Your task to perform on an android device: check google app version Image 0: 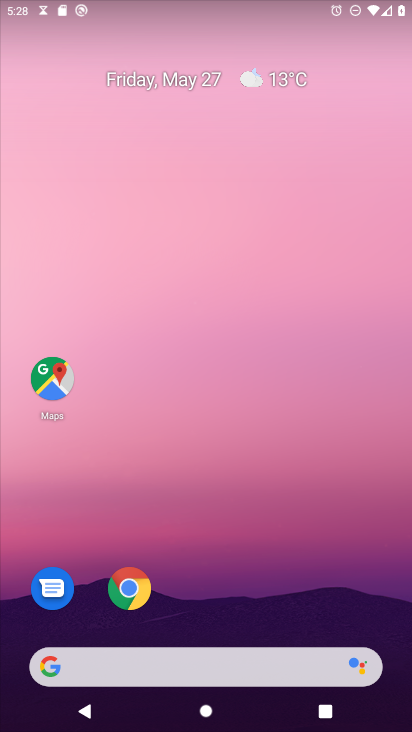
Step 0: drag from (284, 576) to (284, 155)
Your task to perform on an android device: check google app version Image 1: 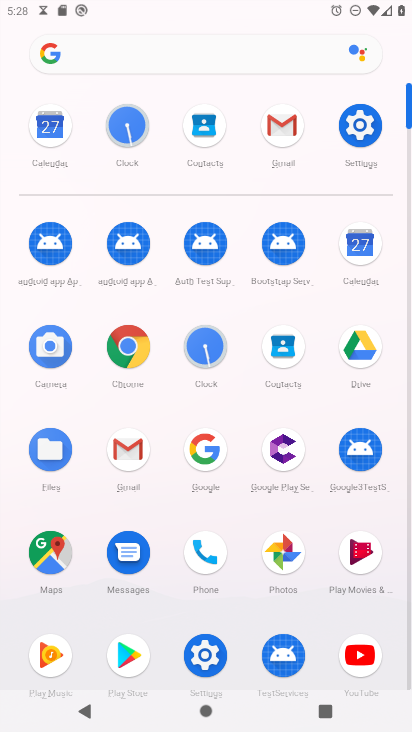
Step 1: click (208, 448)
Your task to perform on an android device: check google app version Image 2: 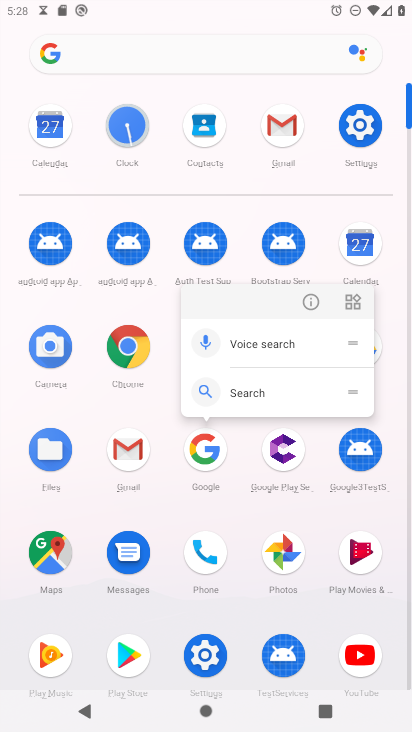
Step 2: click (314, 298)
Your task to perform on an android device: check google app version Image 3: 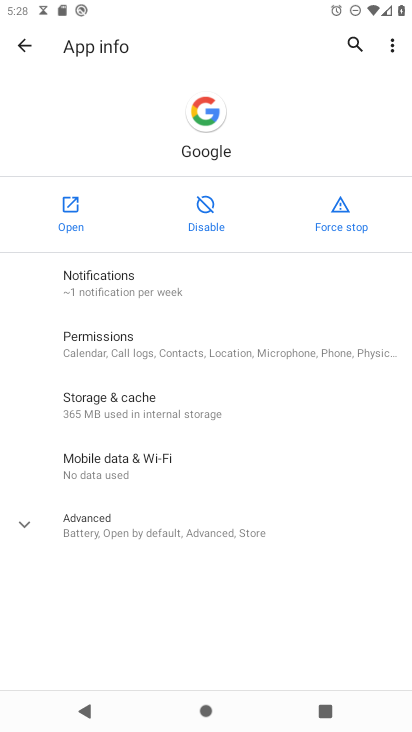
Step 3: click (99, 526)
Your task to perform on an android device: check google app version Image 4: 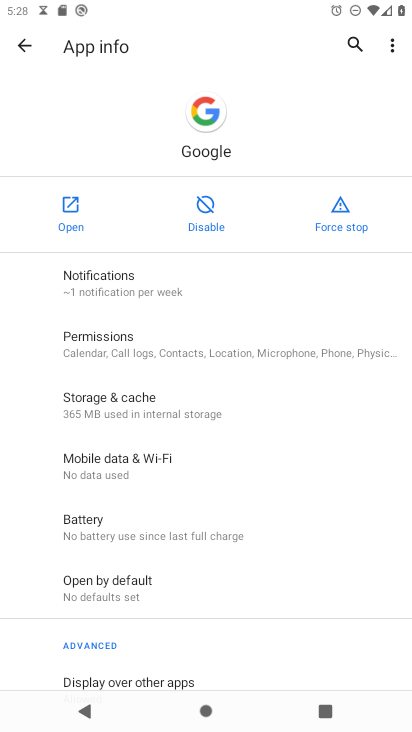
Step 4: task complete